Your task to perform on an android device: Show the shopping cart on newegg.com. Image 0: 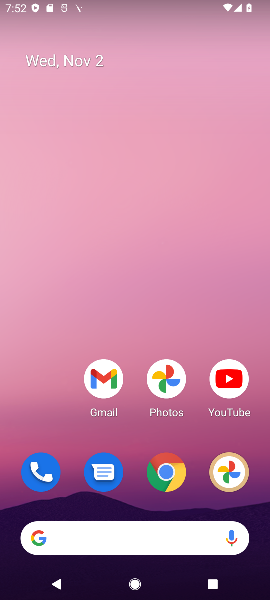
Step 0: click (165, 473)
Your task to perform on an android device: Show the shopping cart on newegg.com. Image 1: 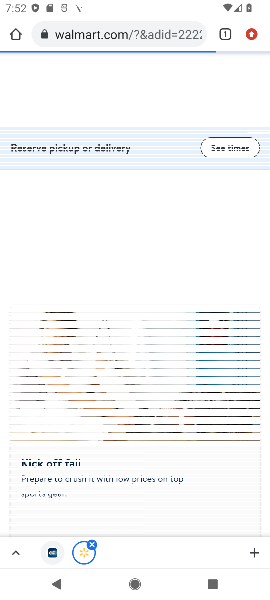
Step 1: click (113, 37)
Your task to perform on an android device: Show the shopping cart on newegg.com. Image 2: 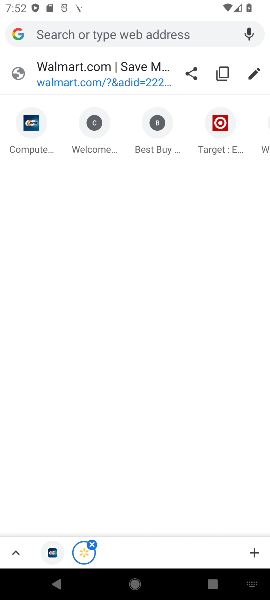
Step 2: type "newegg.com"
Your task to perform on an android device: Show the shopping cart on newegg.com. Image 3: 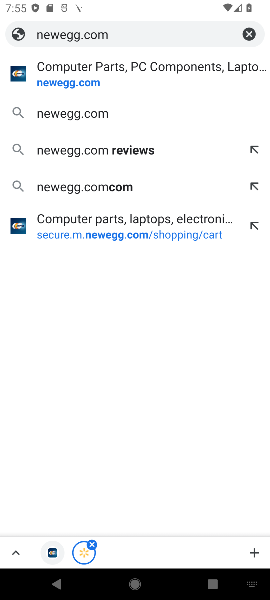
Step 3: click (112, 75)
Your task to perform on an android device: Show the shopping cart on newegg.com. Image 4: 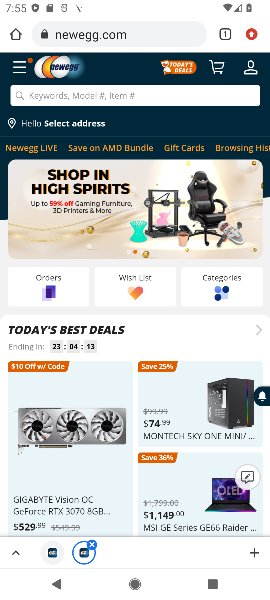
Step 4: task complete